Your task to perform on an android device: check out phone information Image 0: 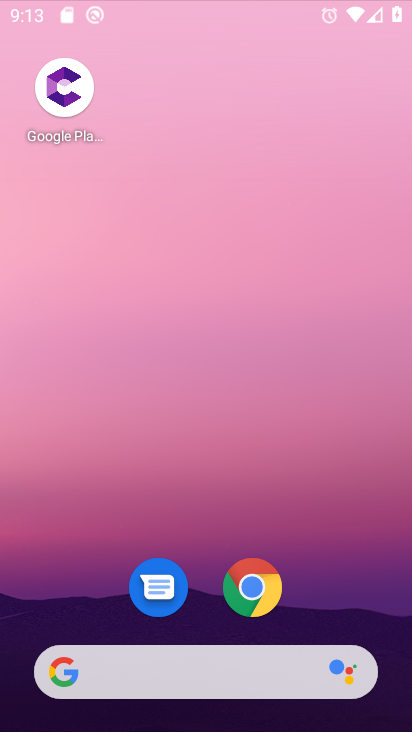
Step 0: click (391, 171)
Your task to perform on an android device: check out phone information Image 1: 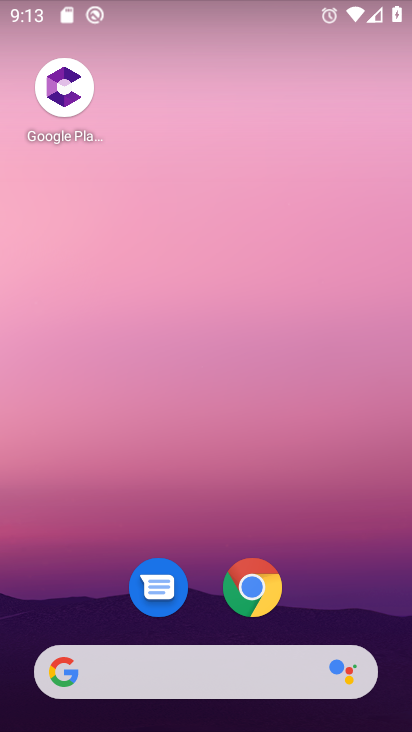
Step 1: drag from (210, 618) to (290, 85)
Your task to perform on an android device: check out phone information Image 2: 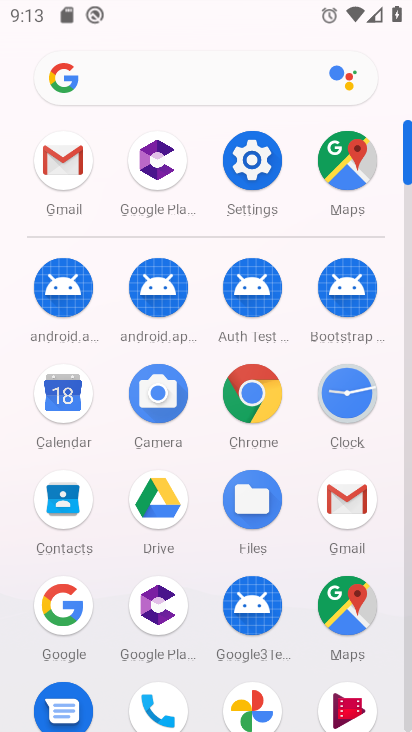
Step 2: click (273, 176)
Your task to perform on an android device: check out phone information Image 3: 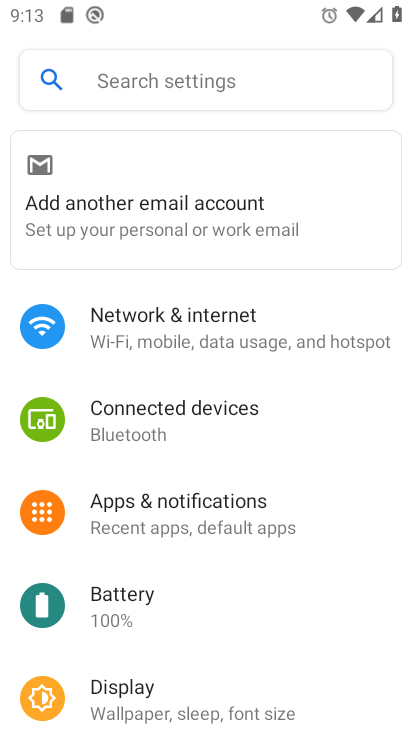
Step 3: drag from (186, 549) to (235, 387)
Your task to perform on an android device: check out phone information Image 4: 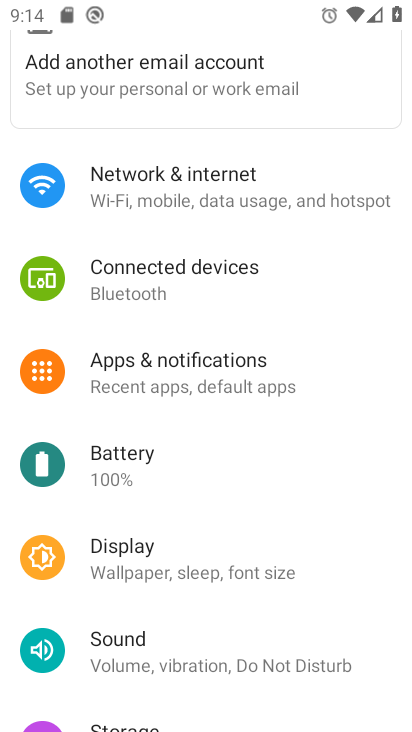
Step 4: drag from (213, 552) to (250, 316)
Your task to perform on an android device: check out phone information Image 5: 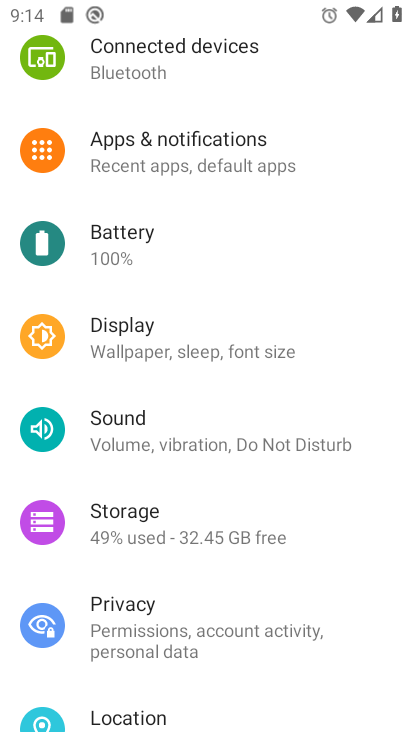
Step 5: drag from (211, 607) to (201, 200)
Your task to perform on an android device: check out phone information Image 6: 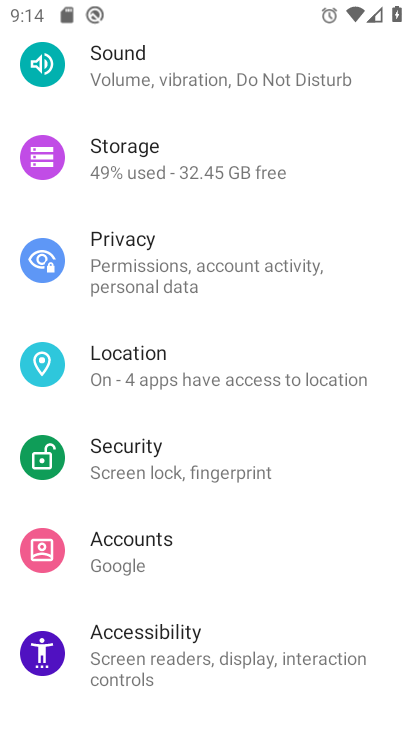
Step 6: drag from (146, 491) to (257, 186)
Your task to perform on an android device: check out phone information Image 7: 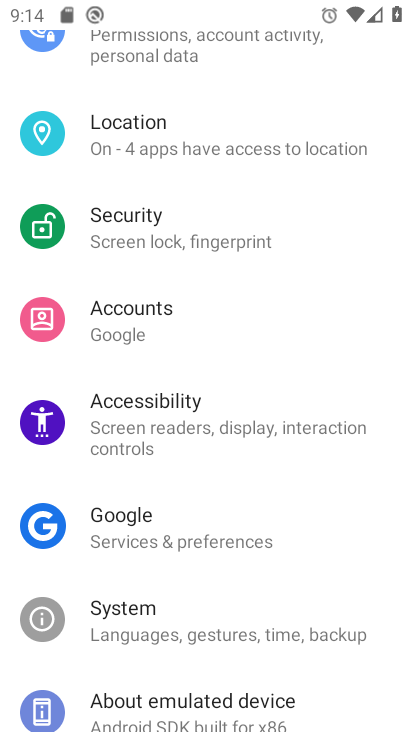
Step 7: drag from (262, 554) to (301, 226)
Your task to perform on an android device: check out phone information Image 8: 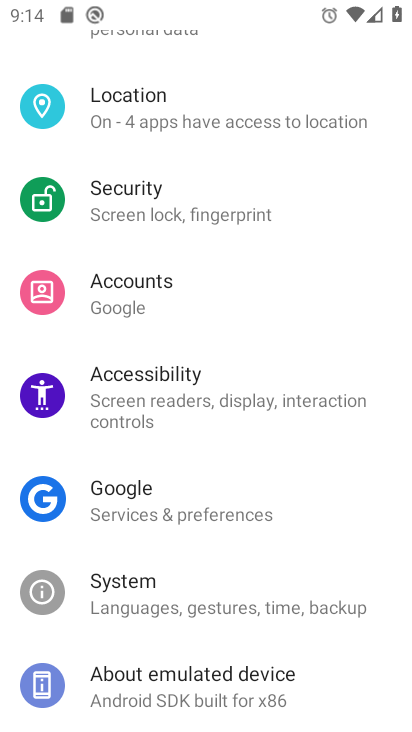
Step 8: click (245, 666)
Your task to perform on an android device: check out phone information Image 9: 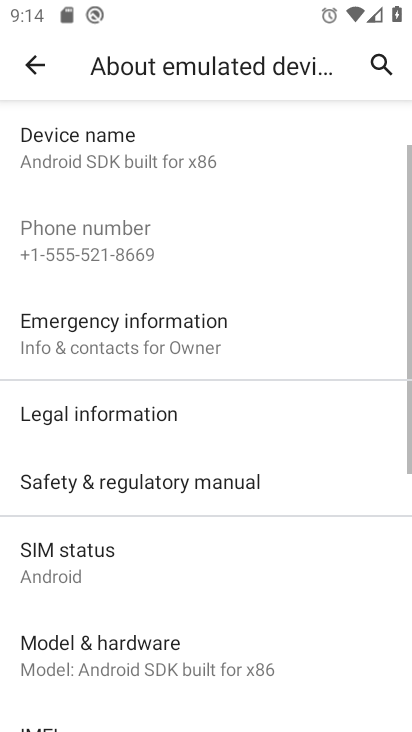
Step 9: task complete